Your task to perform on an android device: Open Yahoo.com Image 0: 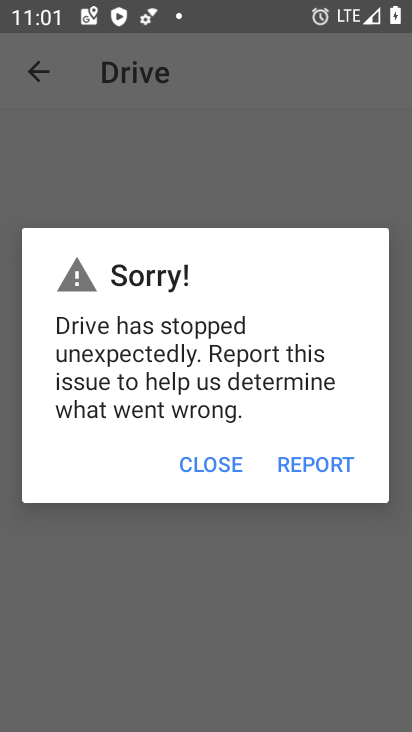
Step 0: press home button
Your task to perform on an android device: Open Yahoo.com Image 1: 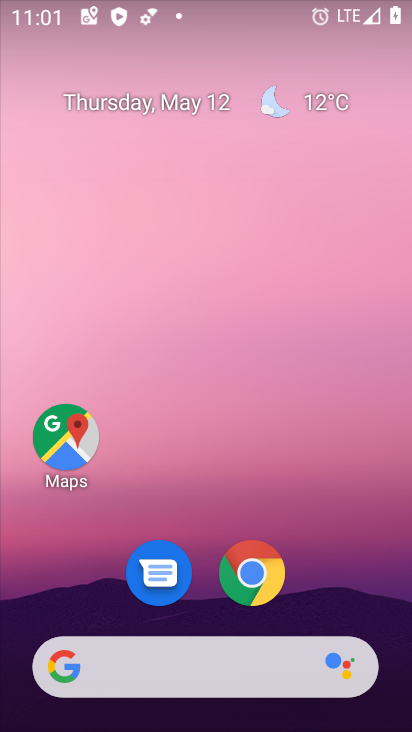
Step 1: click (274, 663)
Your task to perform on an android device: Open Yahoo.com Image 2: 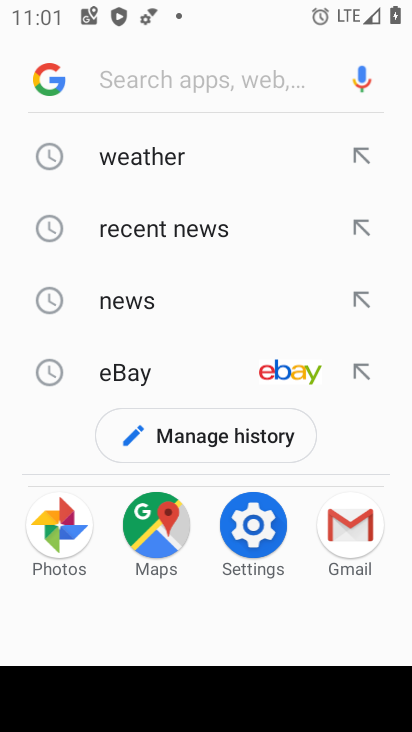
Step 2: type "yahoo.com"
Your task to perform on an android device: Open Yahoo.com Image 3: 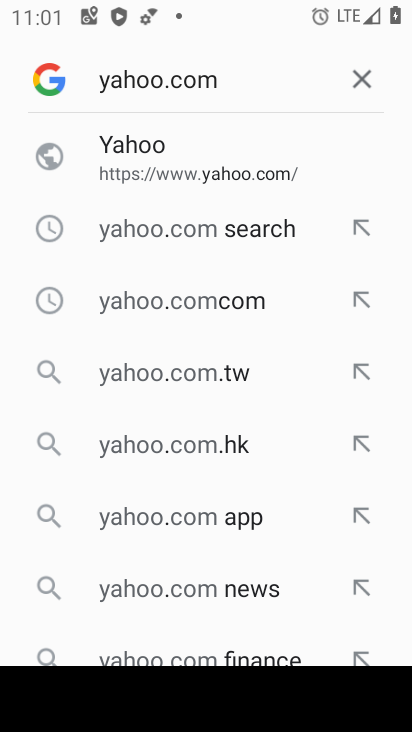
Step 3: click (142, 153)
Your task to perform on an android device: Open Yahoo.com Image 4: 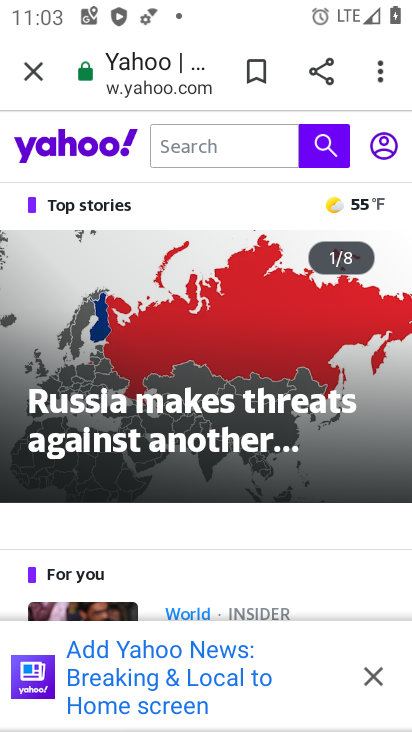
Step 4: task complete